Your task to perform on an android device: turn on showing notifications on the lock screen Image 0: 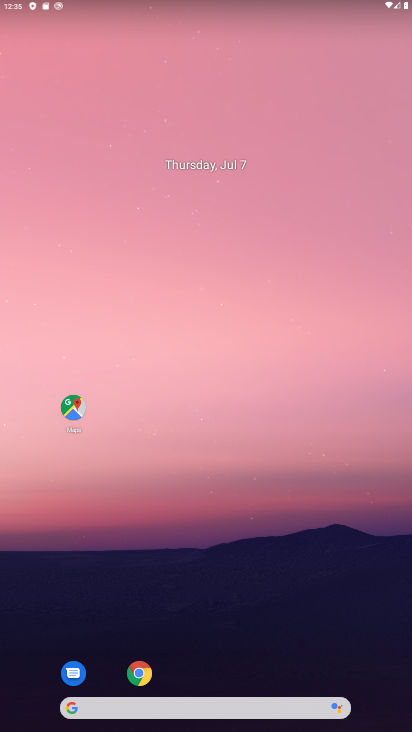
Step 0: drag from (205, 595) to (275, 242)
Your task to perform on an android device: turn on showing notifications on the lock screen Image 1: 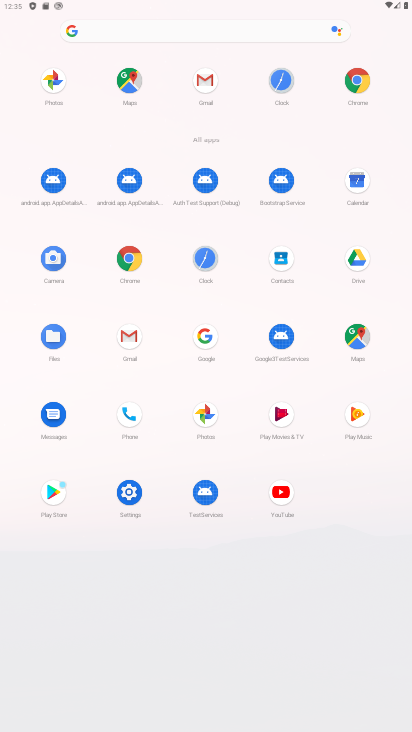
Step 1: click (136, 490)
Your task to perform on an android device: turn on showing notifications on the lock screen Image 2: 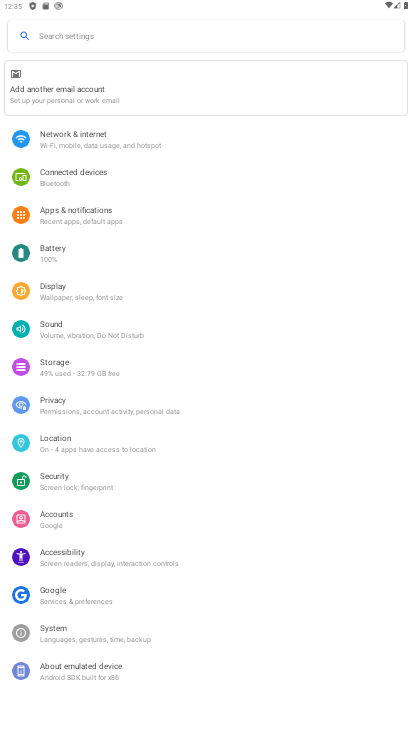
Step 2: click (103, 225)
Your task to perform on an android device: turn on showing notifications on the lock screen Image 3: 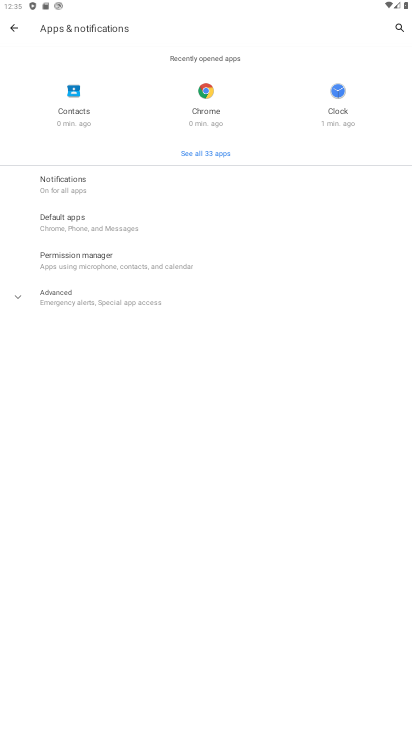
Step 3: click (104, 173)
Your task to perform on an android device: turn on showing notifications on the lock screen Image 4: 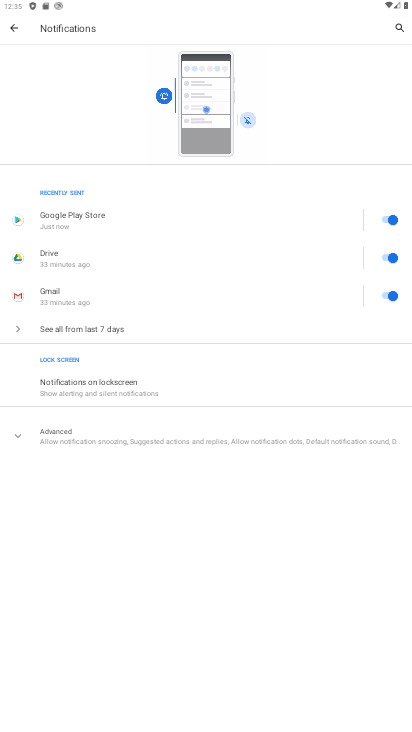
Step 4: click (115, 442)
Your task to perform on an android device: turn on showing notifications on the lock screen Image 5: 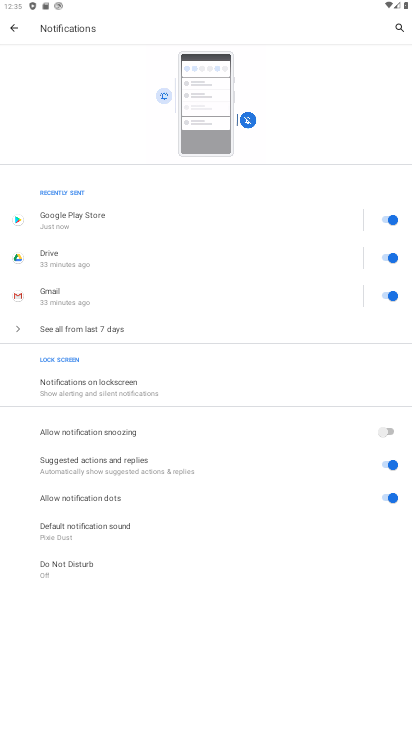
Step 5: click (118, 369)
Your task to perform on an android device: turn on showing notifications on the lock screen Image 6: 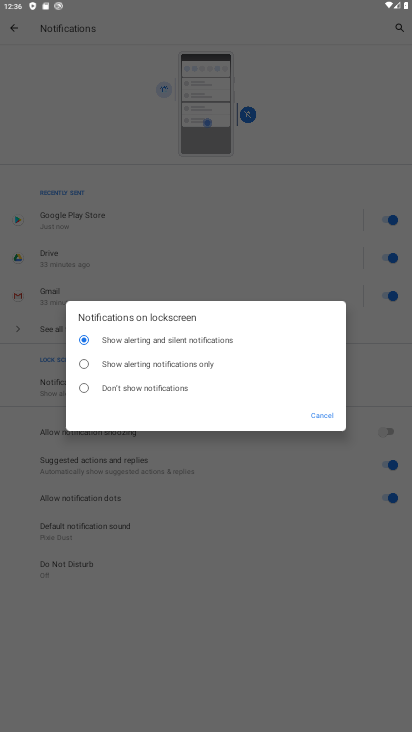
Step 6: task complete